Your task to perform on an android device: Show me the alarms in the clock app Image 0: 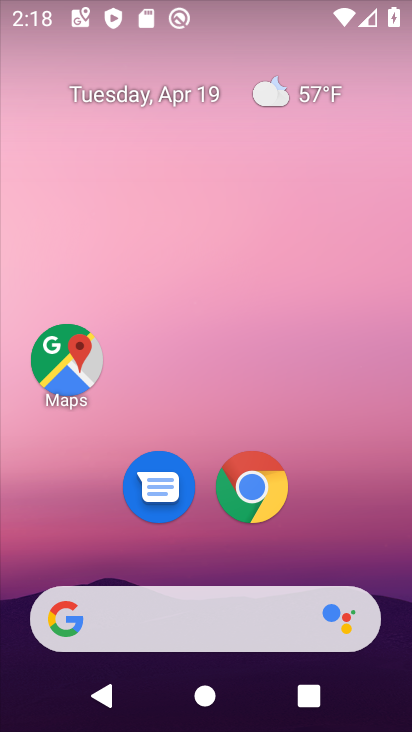
Step 0: drag from (201, 552) to (160, 45)
Your task to perform on an android device: Show me the alarms in the clock app Image 1: 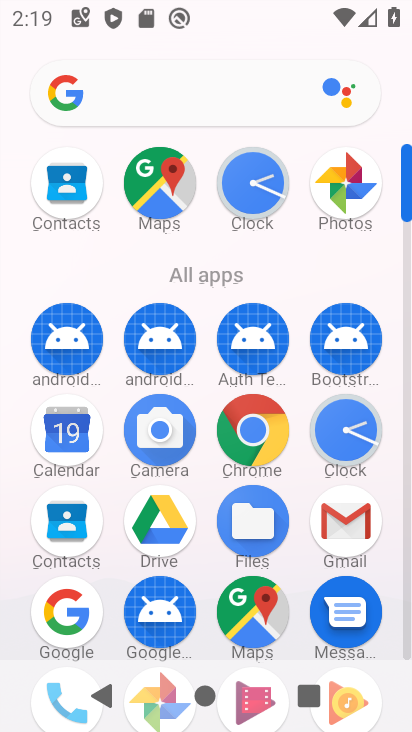
Step 1: click (250, 158)
Your task to perform on an android device: Show me the alarms in the clock app Image 2: 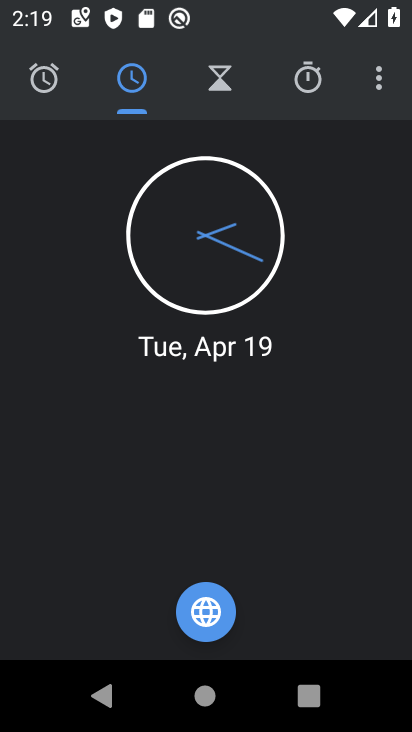
Step 2: click (53, 81)
Your task to perform on an android device: Show me the alarms in the clock app Image 3: 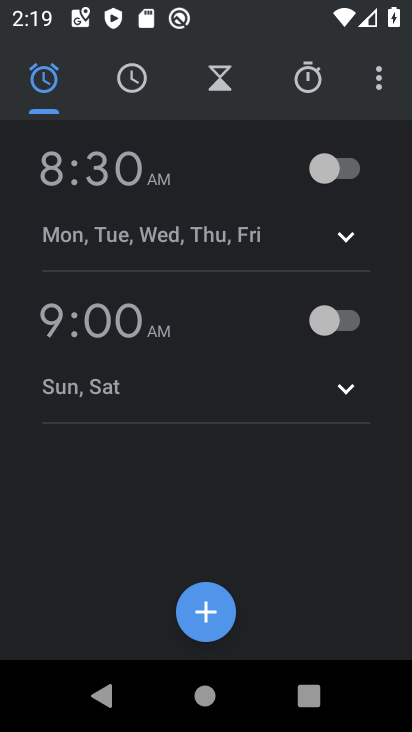
Step 3: click (353, 176)
Your task to perform on an android device: Show me the alarms in the clock app Image 4: 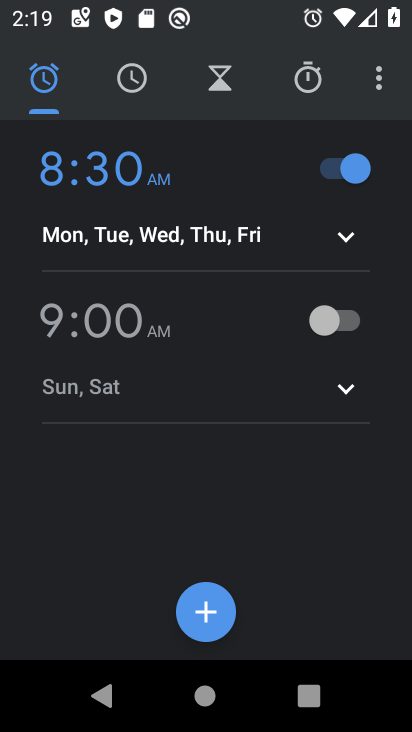
Step 4: task complete